Your task to perform on an android device: Search for sushi restaurants on Maps Image 0: 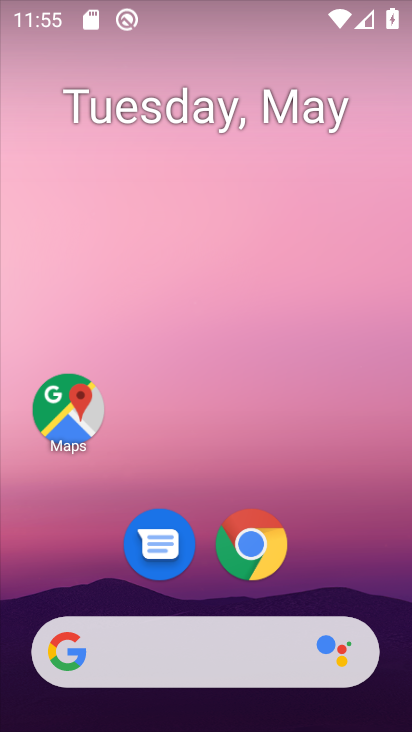
Step 0: click (223, 455)
Your task to perform on an android device: Search for sushi restaurants on Maps Image 1: 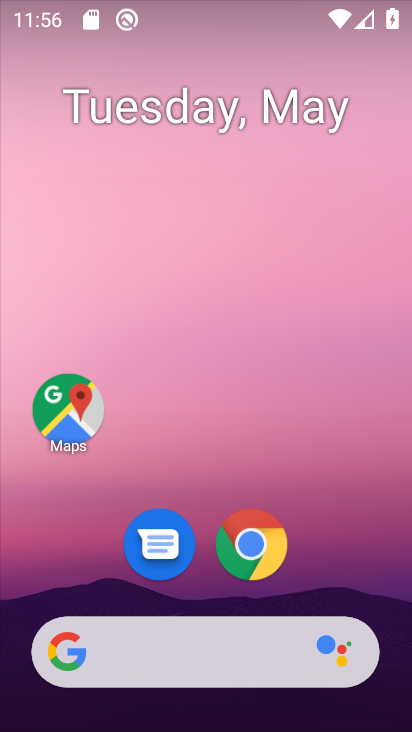
Step 1: drag from (205, 480) to (200, 101)
Your task to perform on an android device: Search for sushi restaurants on Maps Image 2: 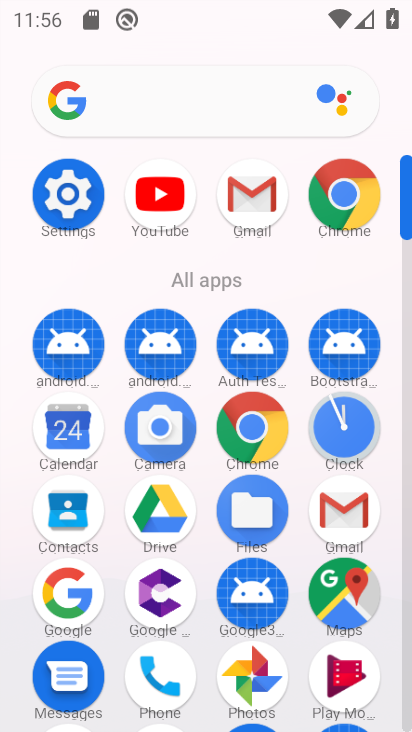
Step 2: click (334, 587)
Your task to perform on an android device: Search for sushi restaurants on Maps Image 3: 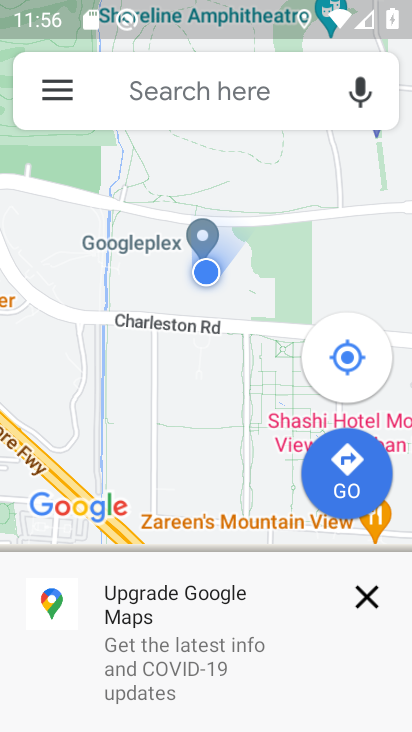
Step 3: click (171, 98)
Your task to perform on an android device: Search for sushi restaurants on Maps Image 4: 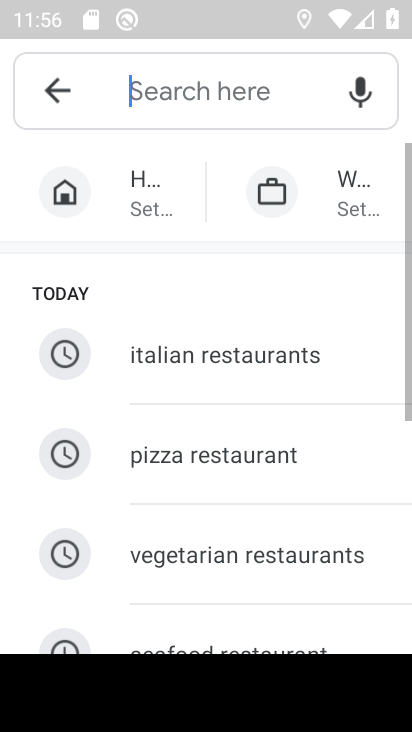
Step 4: drag from (205, 566) to (240, 175)
Your task to perform on an android device: Search for sushi restaurants on Maps Image 5: 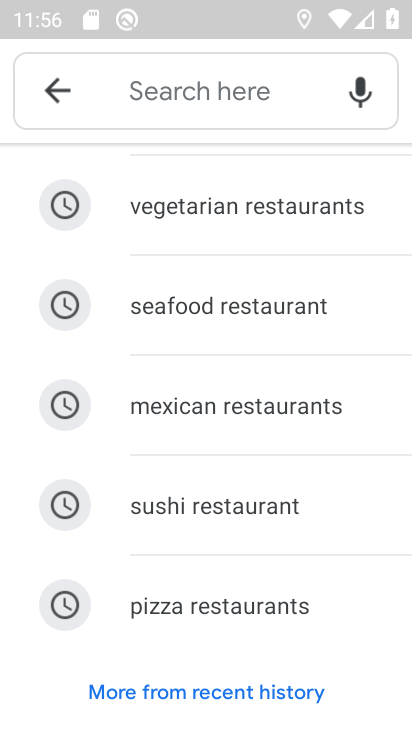
Step 5: click (237, 507)
Your task to perform on an android device: Search for sushi restaurants on Maps Image 6: 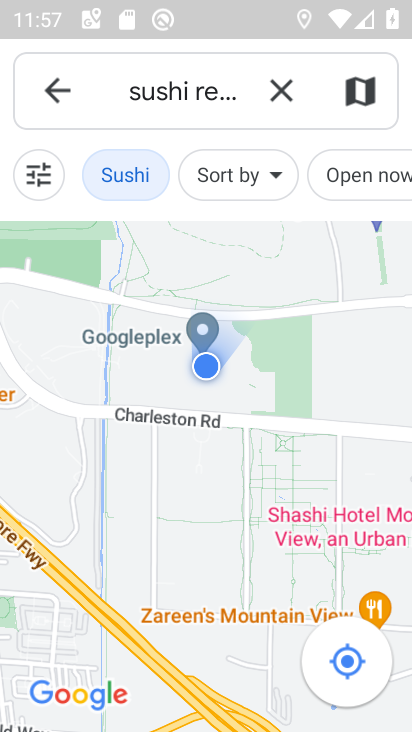
Step 6: task complete